Your task to perform on an android device: Open Chrome and go to the settings page Image 0: 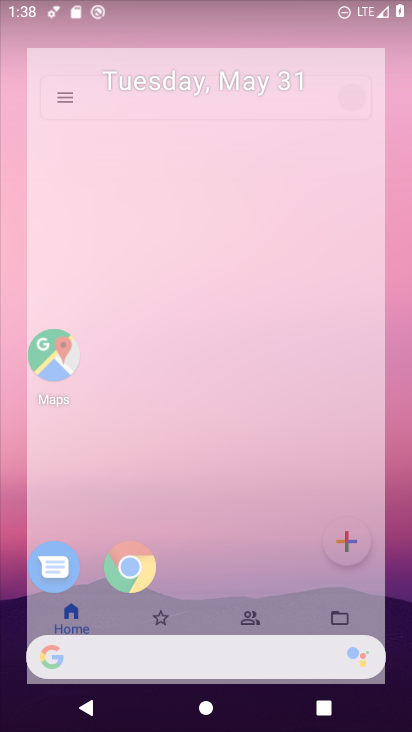
Step 0: drag from (220, 600) to (295, 146)
Your task to perform on an android device: Open Chrome and go to the settings page Image 1: 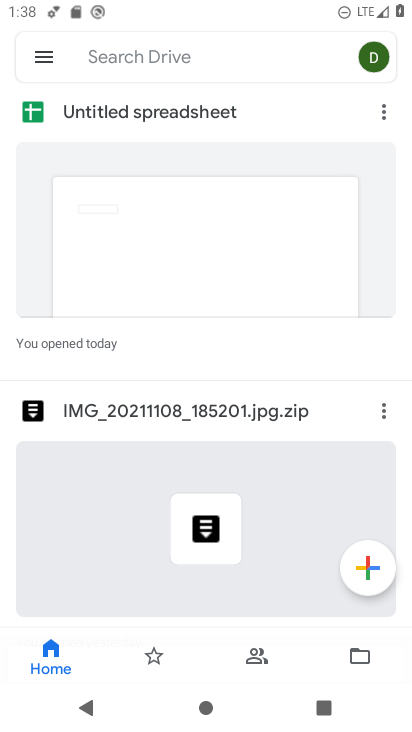
Step 1: press home button
Your task to perform on an android device: Open Chrome and go to the settings page Image 2: 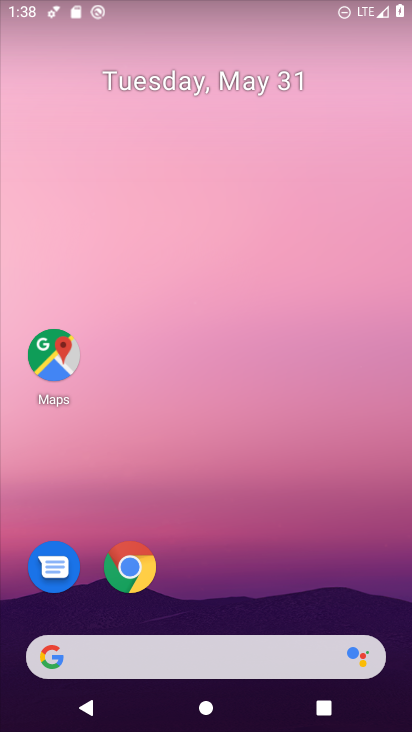
Step 2: click (122, 575)
Your task to perform on an android device: Open Chrome and go to the settings page Image 3: 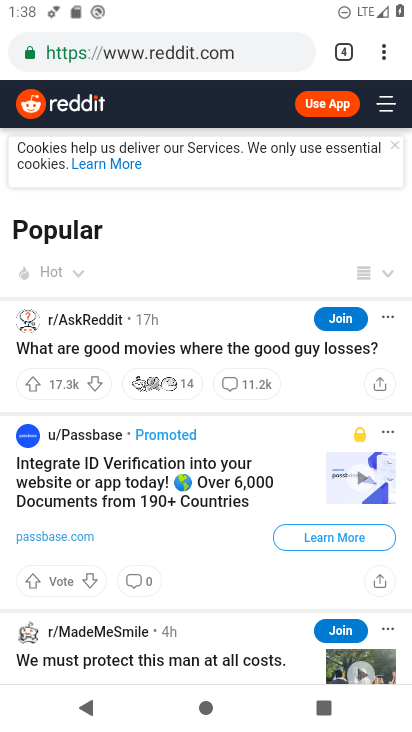
Step 3: click (382, 58)
Your task to perform on an android device: Open Chrome and go to the settings page Image 4: 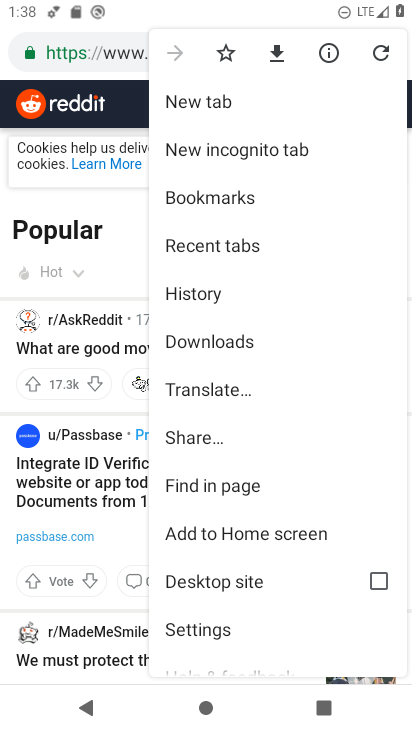
Step 4: click (255, 631)
Your task to perform on an android device: Open Chrome and go to the settings page Image 5: 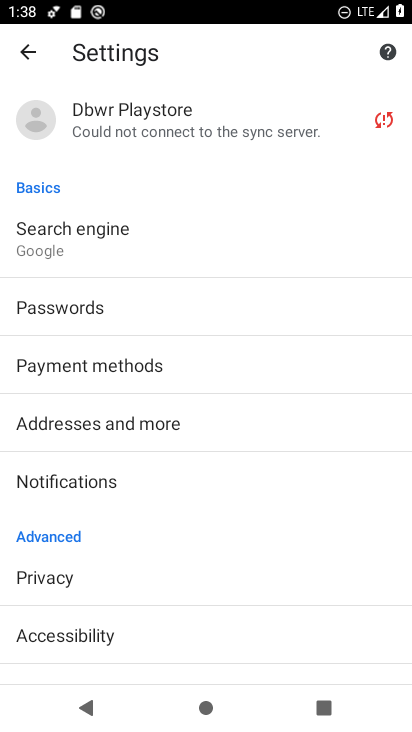
Step 5: task complete